Your task to perform on an android device: turn on showing notifications on the lock screen Image 0: 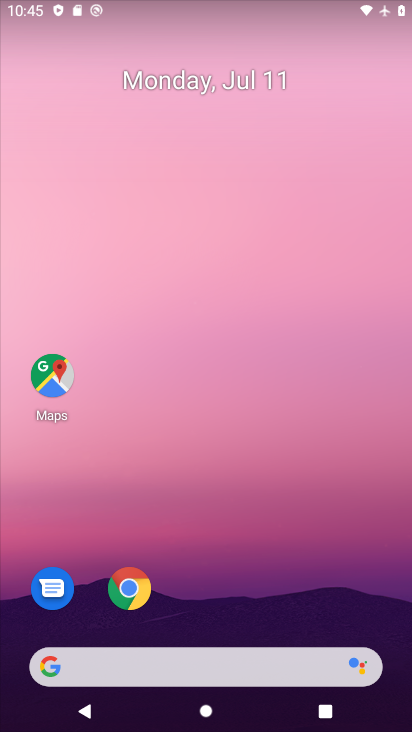
Step 0: drag from (221, 661) to (311, 197)
Your task to perform on an android device: turn on showing notifications on the lock screen Image 1: 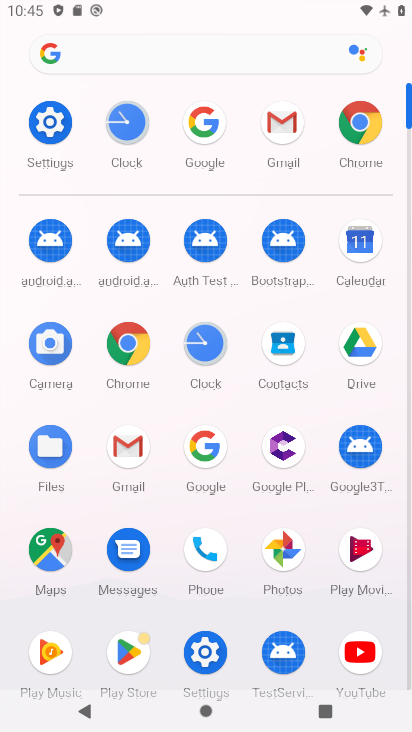
Step 1: click (44, 128)
Your task to perform on an android device: turn on showing notifications on the lock screen Image 2: 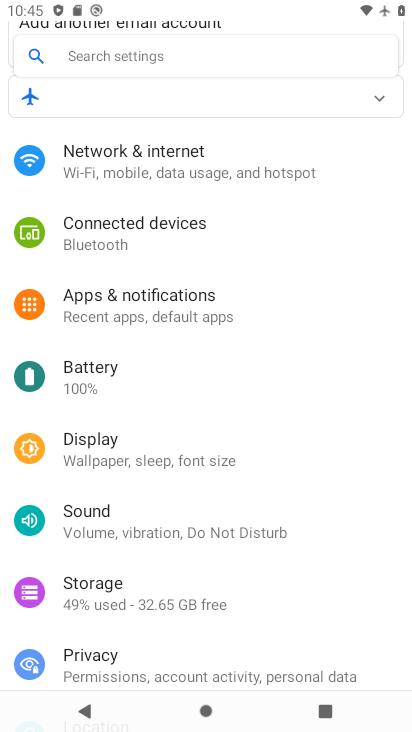
Step 2: click (197, 309)
Your task to perform on an android device: turn on showing notifications on the lock screen Image 3: 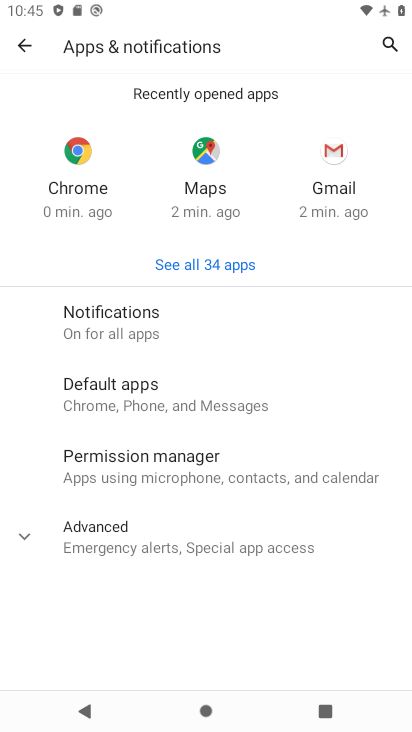
Step 3: click (144, 333)
Your task to perform on an android device: turn on showing notifications on the lock screen Image 4: 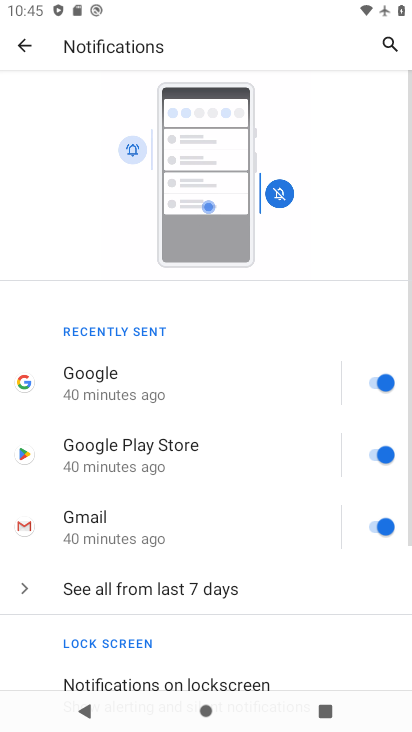
Step 4: drag from (209, 630) to (343, 224)
Your task to perform on an android device: turn on showing notifications on the lock screen Image 5: 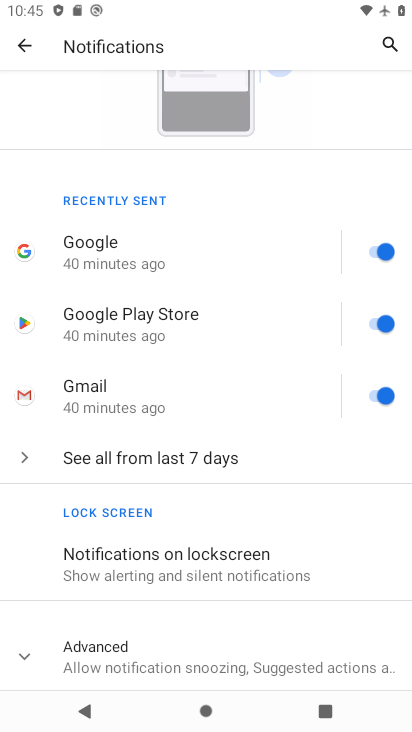
Step 5: click (204, 567)
Your task to perform on an android device: turn on showing notifications on the lock screen Image 6: 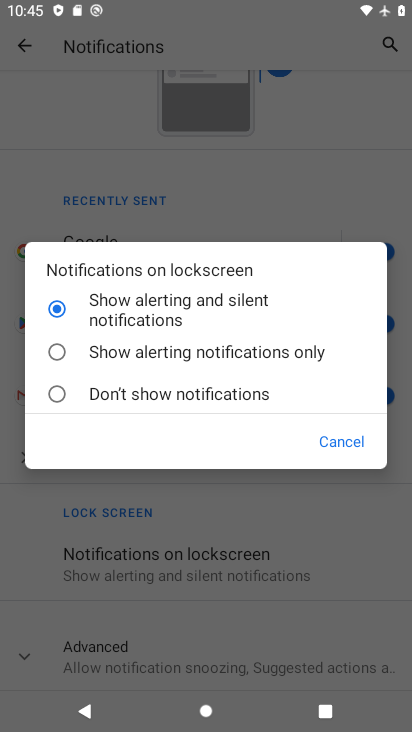
Step 6: task complete